Your task to perform on an android device: Open settings on Google Maps Image 0: 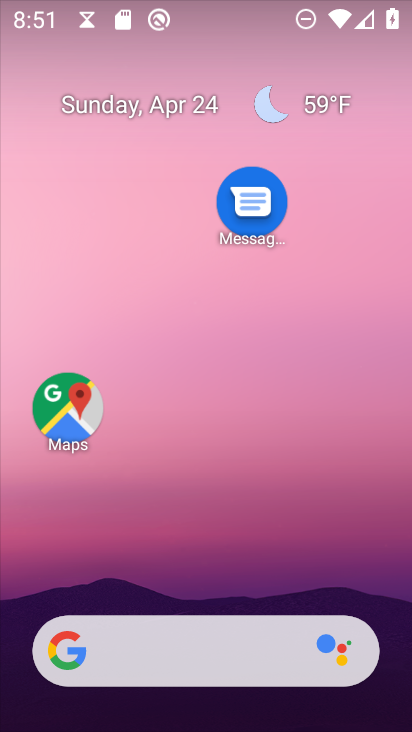
Step 0: press home button
Your task to perform on an android device: Open settings on Google Maps Image 1: 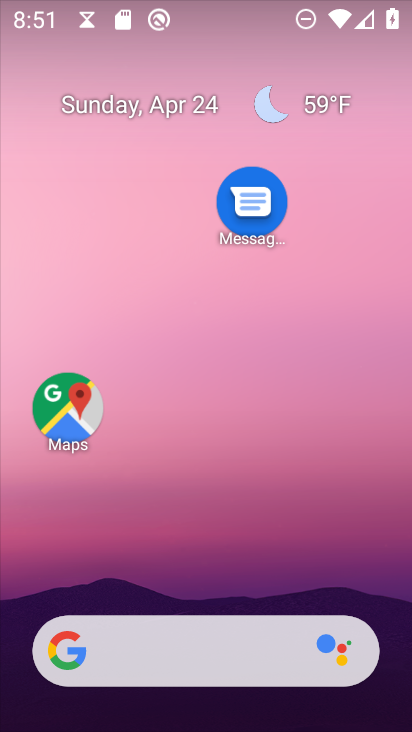
Step 1: drag from (147, 664) to (345, 312)
Your task to perform on an android device: Open settings on Google Maps Image 2: 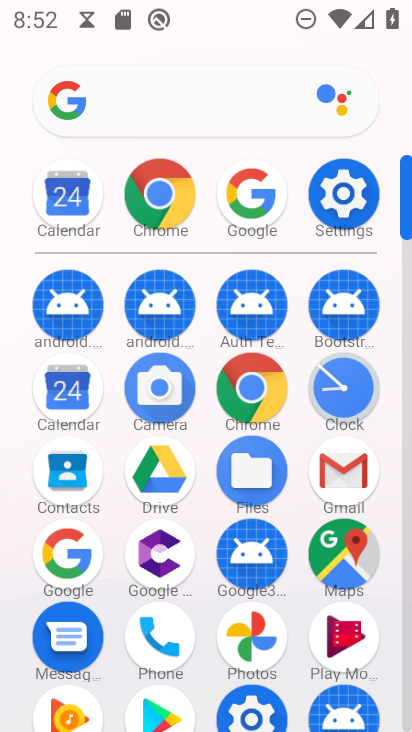
Step 2: click (340, 557)
Your task to perform on an android device: Open settings on Google Maps Image 3: 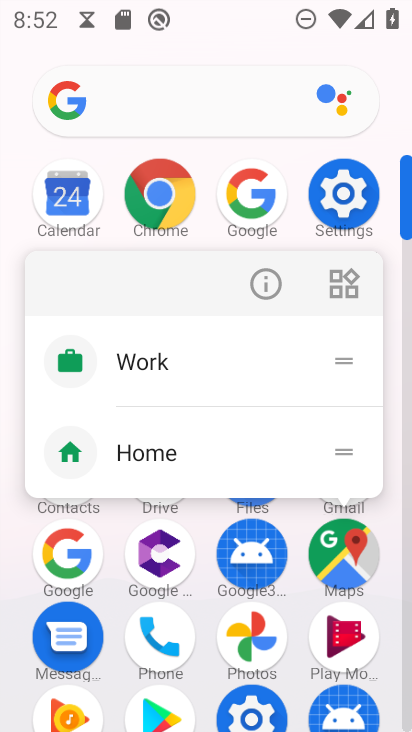
Step 3: click (338, 561)
Your task to perform on an android device: Open settings on Google Maps Image 4: 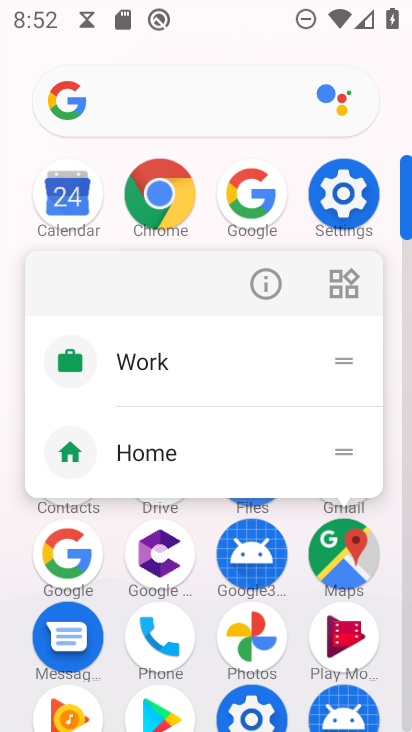
Step 4: click (338, 561)
Your task to perform on an android device: Open settings on Google Maps Image 5: 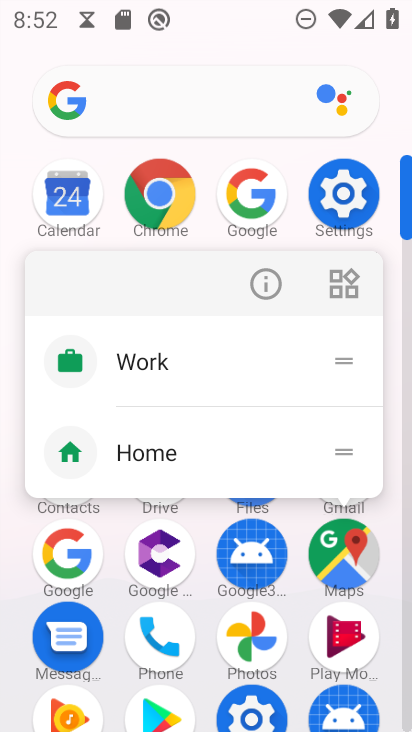
Step 5: click (350, 566)
Your task to perform on an android device: Open settings on Google Maps Image 6: 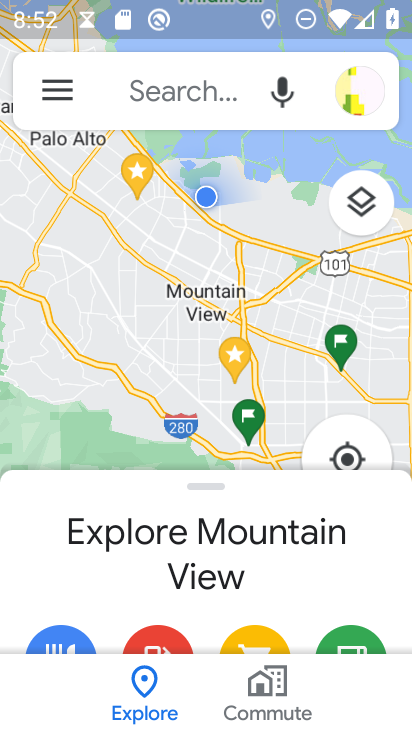
Step 6: click (61, 95)
Your task to perform on an android device: Open settings on Google Maps Image 7: 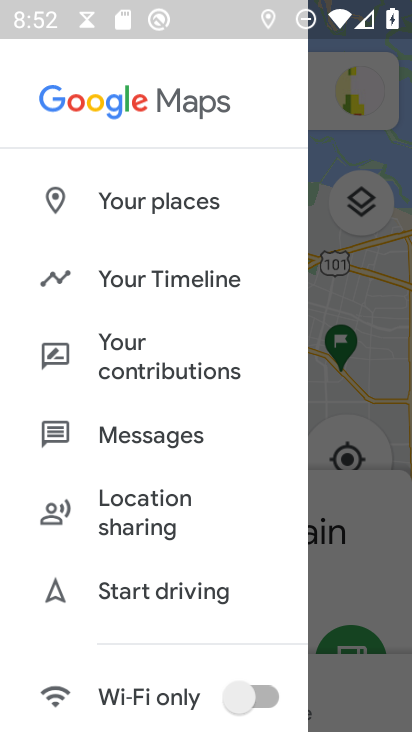
Step 7: drag from (150, 710) to (277, 256)
Your task to perform on an android device: Open settings on Google Maps Image 8: 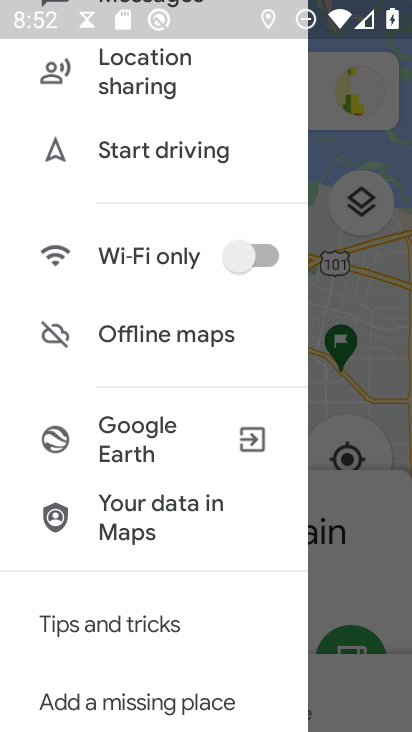
Step 8: drag from (137, 563) to (278, 270)
Your task to perform on an android device: Open settings on Google Maps Image 9: 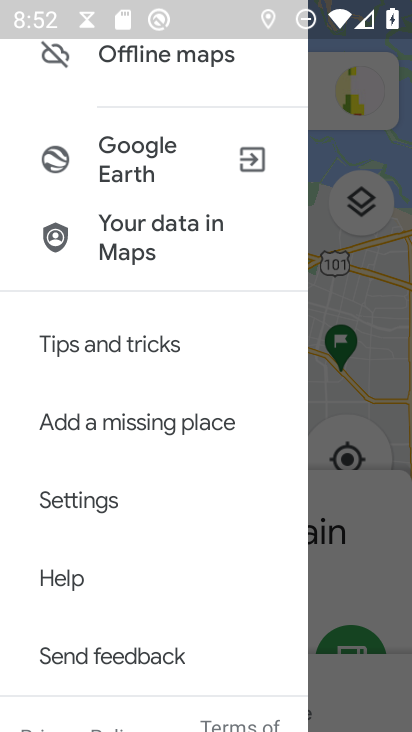
Step 9: click (94, 499)
Your task to perform on an android device: Open settings on Google Maps Image 10: 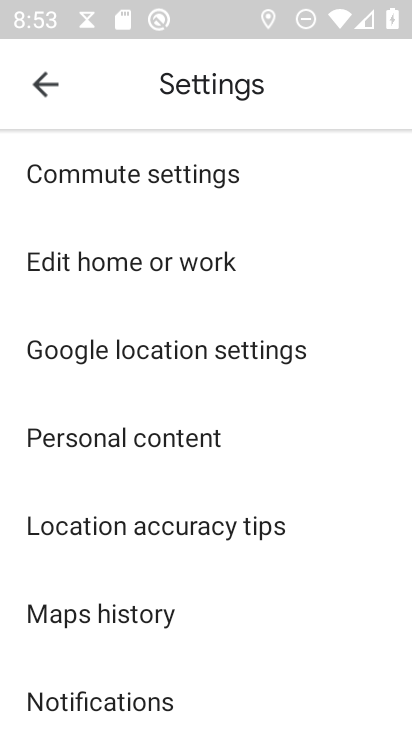
Step 10: task complete